Your task to perform on an android device: turn off location Image 0: 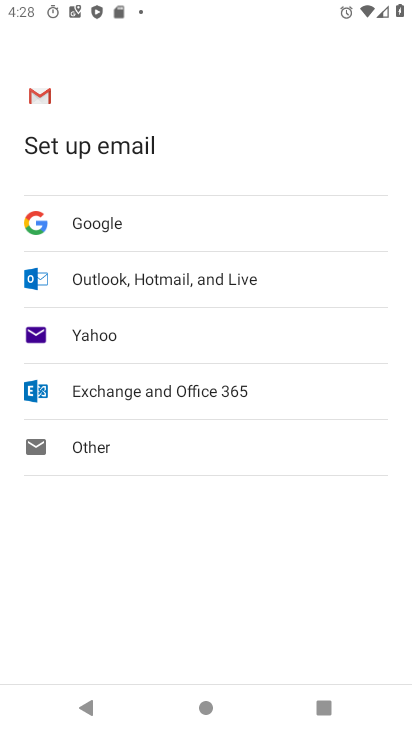
Step 0: press home button
Your task to perform on an android device: turn off location Image 1: 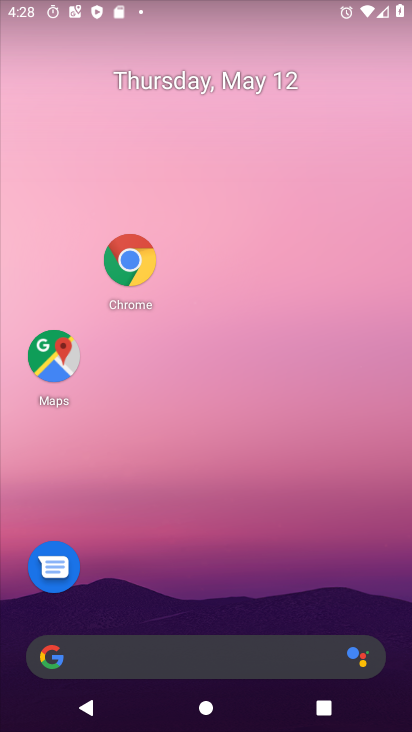
Step 1: drag from (207, 608) to (285, 255)
Your task to perform on an android device: turn off location Image 2: 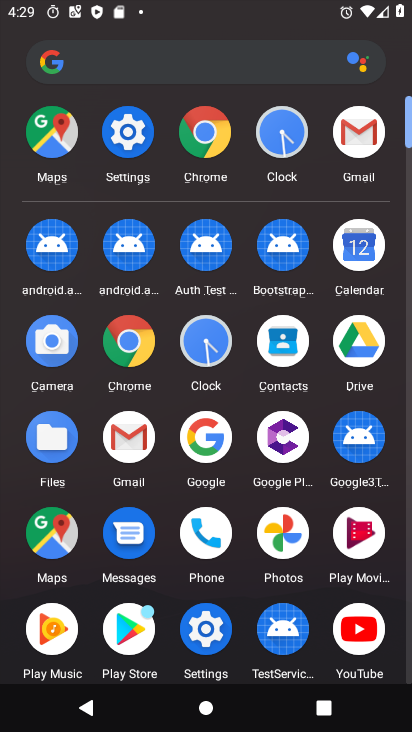
Step 2: click (202, 629)
Your task to perform on an android device: turn off location Image 3: 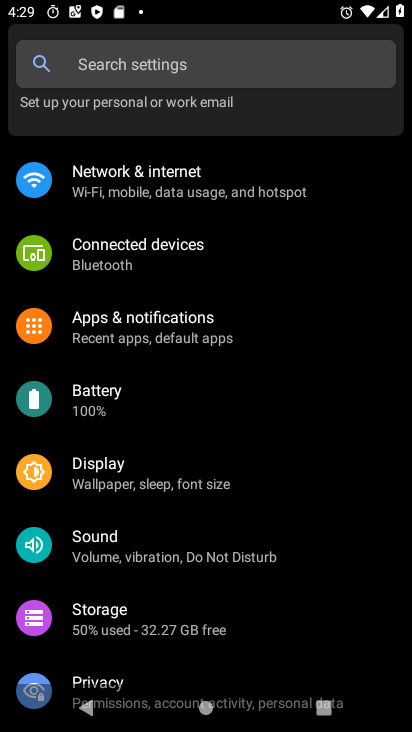
Step 3: drag from (153, 670) to (162, 413)
Your task to perform on an android device: turn off location Image 4: 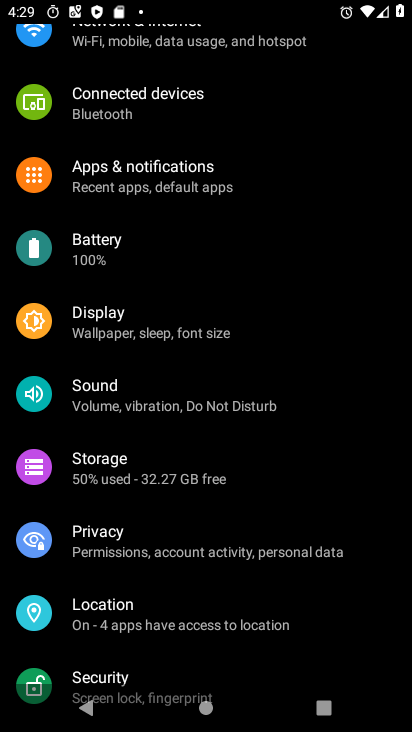
Step 4: click (121, 613)
Your task to perform on an android device: turn off location Image 5: 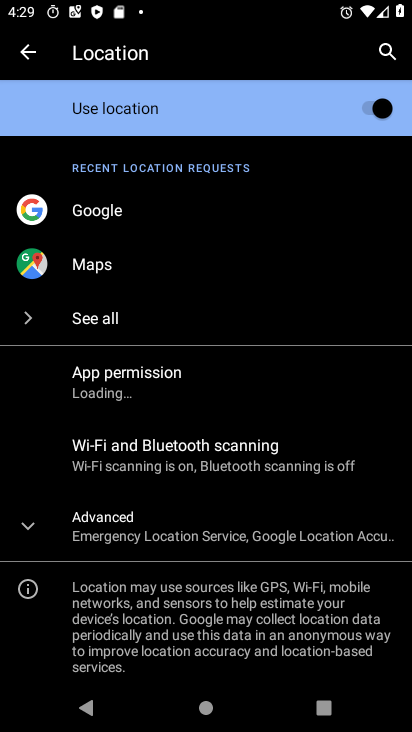
Step 5: click (372, 108)
Your task to perform on an android device: turn off location Image 6: 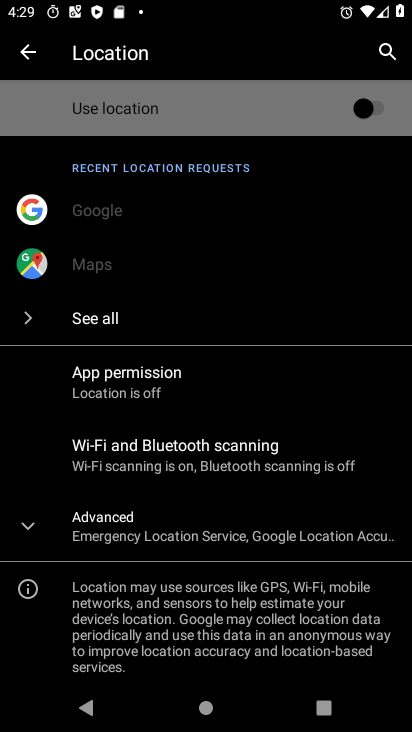
Step 6: task complete